Your task to perform on an android device: turn off smart reply in the gmail app Image 0: 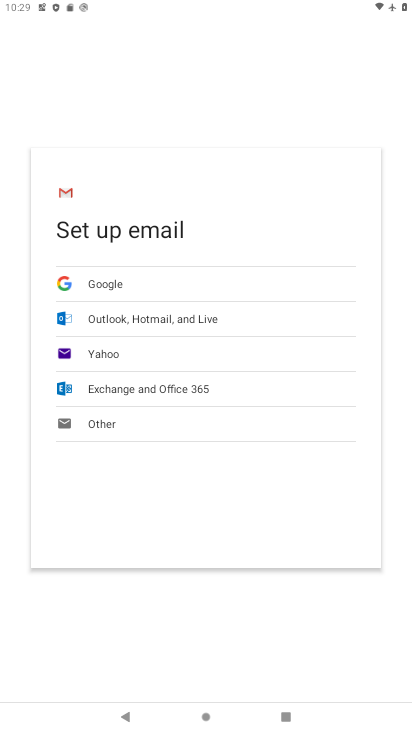
Step 0: task complete